Your task to perform on an android device: open sync settings in chrome Image 0: 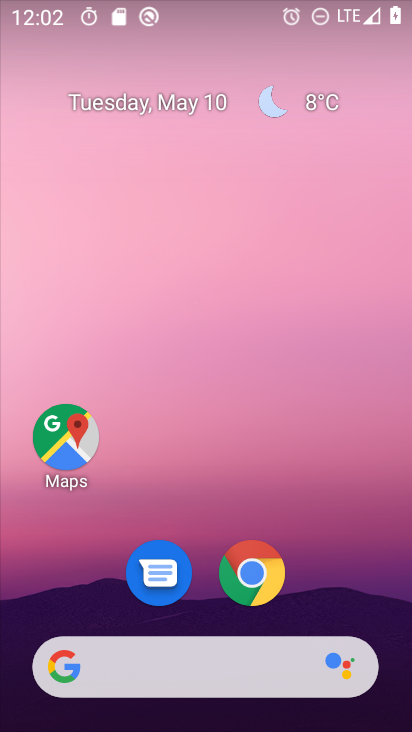
Step 0: drag from (347, 555) to (351, 147)
Your task to perform on an android device: open sync settings in chrome Image 1: 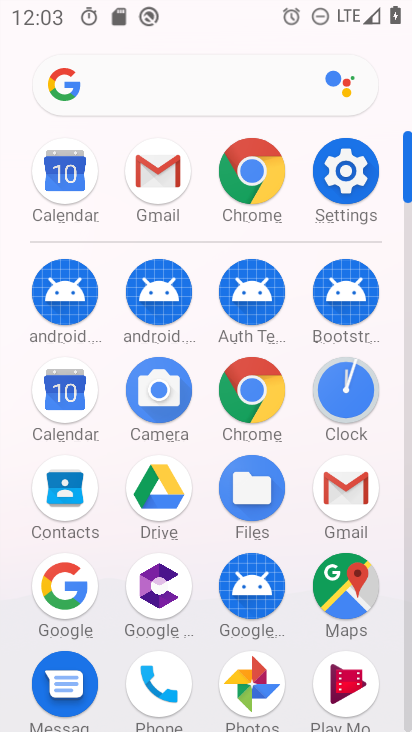
Step 1: click (250, 393)
Your task to perform on an android device: open sync settings in chrome Image 2: 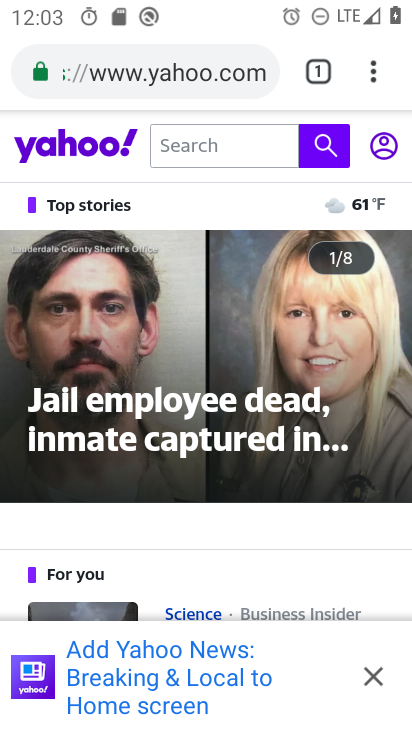
Step 2: drag from (377, 60) to (214, 570)
Your task to perform on an android device: open sync settings in chrome Image 3: 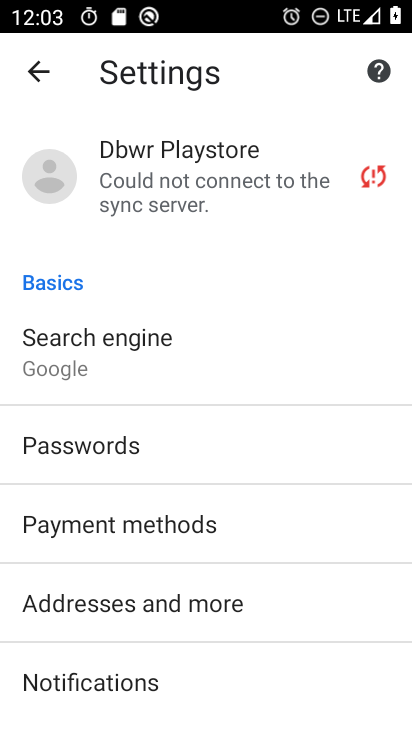
Step 3: drag from (227, 610) to (261, 218)
Your task to perform on an android device: open sync settings in chrome Image 4: 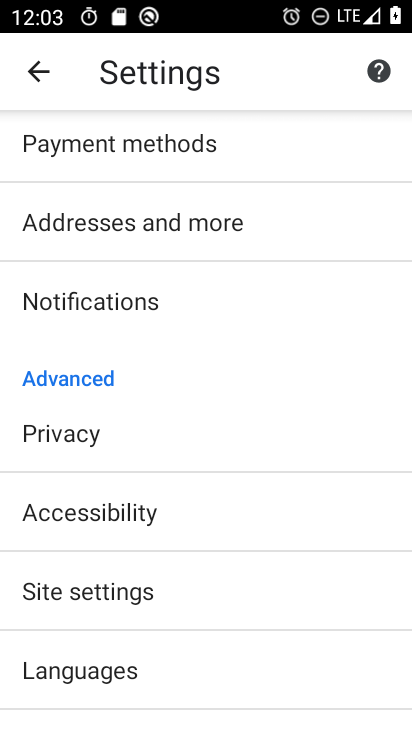
Step 4: drag from (245, 231) to (303, 691)
Your task to perform on an android device: open sync settings in chrome Image 5: 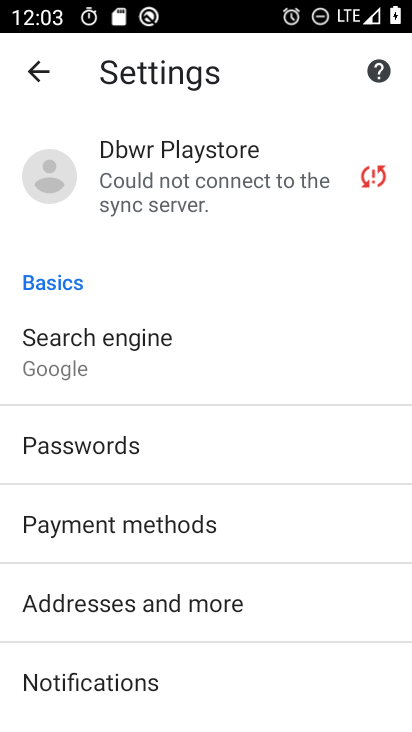
Step 5: click (226, 188)
Your task to perform on an android device: open sync settings in chrome Image 6: 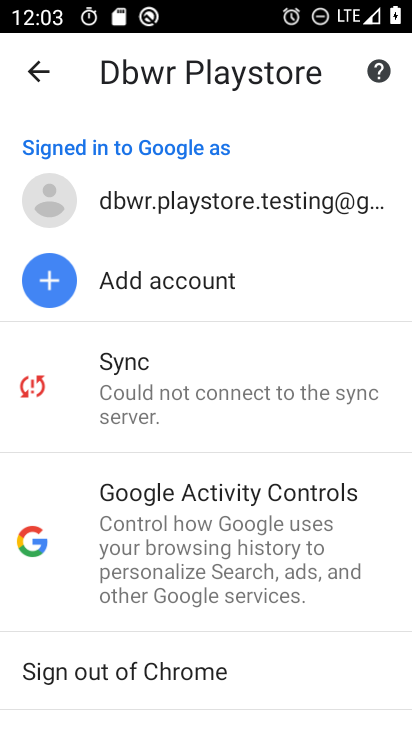
Step 6: click (197, 395)
Your task to perform on an android device: open sync settings in chrome Image 7: 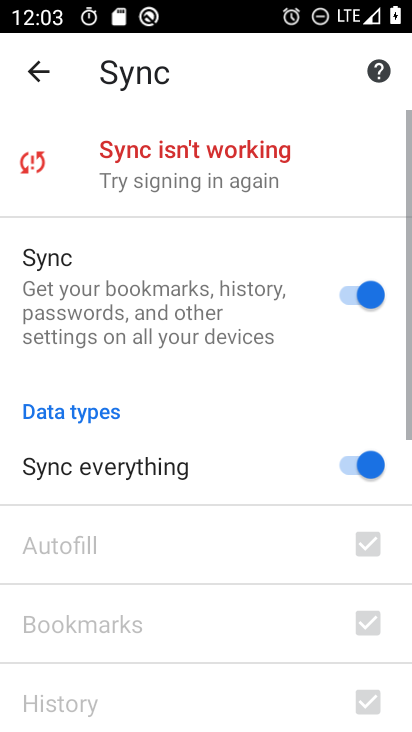
Step 7: task complete